Your task to perform on an android device: turn on wifi Image 0: 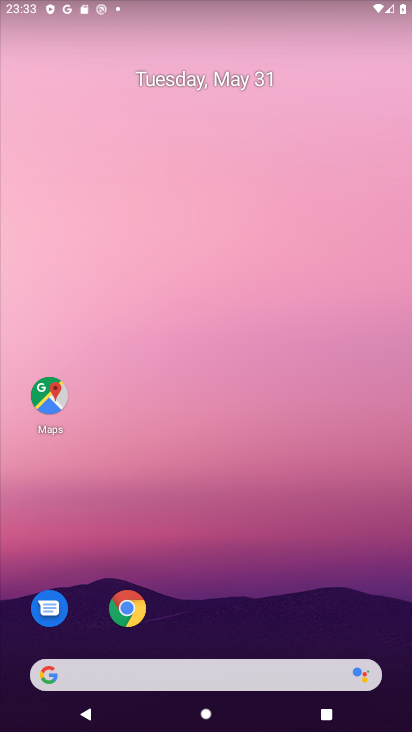
Step 0: drag from (391, 246) to (375, 605)
Your task to perform on an android device: turn on wifi Image 1: 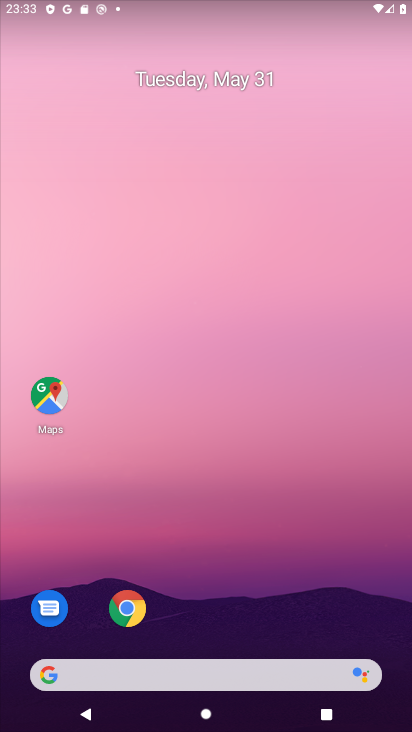
Step 1: task complete